Your task to perform on an android device: change timer sound Image 0: 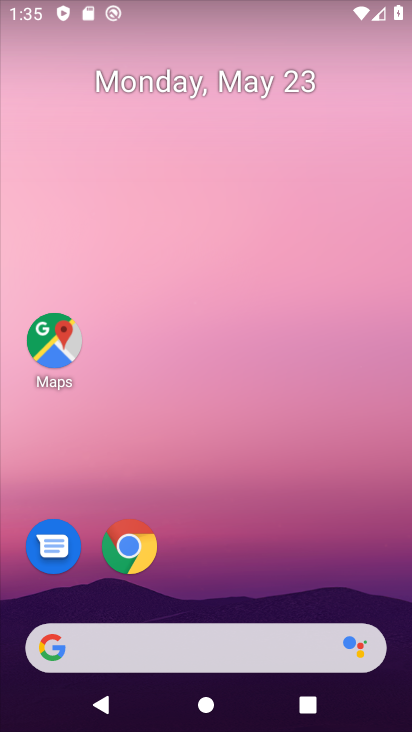
Step 0: drag from (257, 528) to (270, 33)
Your task to perform on an android device: change timer sound Image 1: 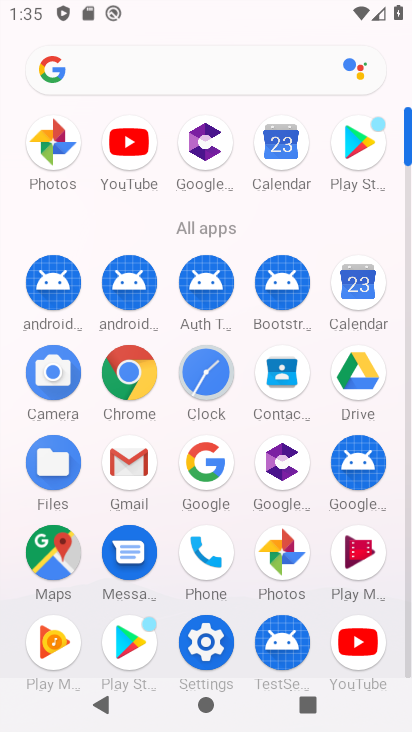
Step 1: click (205, 371)
Your task to perform on an android device: change timer sound Image 2: 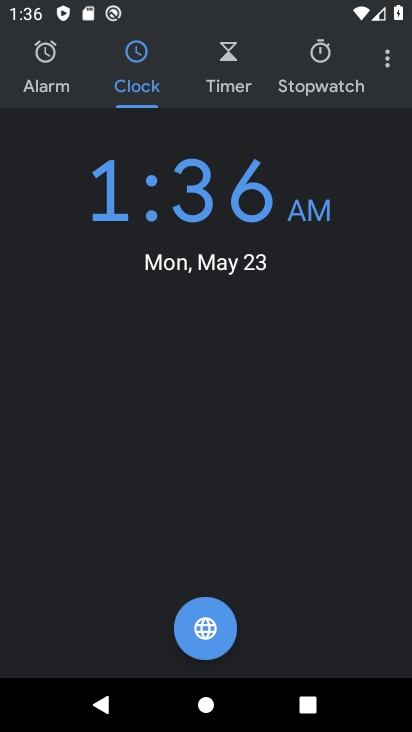
Step 2: click (388, 56)
Your task to perform on an android device: change timer sound Image 3: 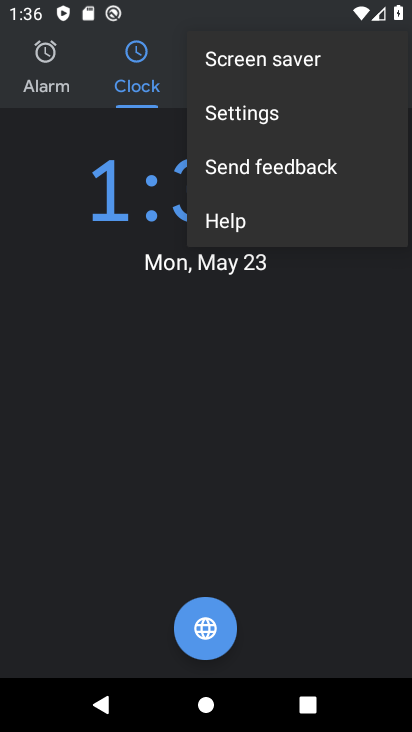
Step 3: click (304, 101)
Your task to perform on an android device: change timer sound Image 4: 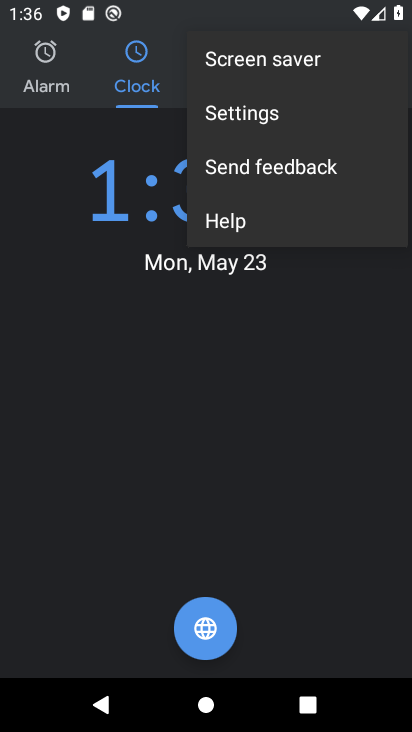
Step 4: click (260, 110)
Your task to perform on an android device: change timer sound Image 5: 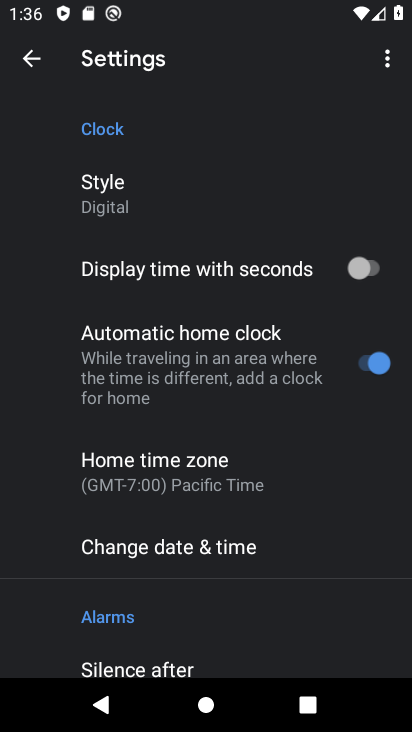
Step 5: drag from (225, 242) to (240, 92)
Your task to perform on an android device: change timer sound Image 6: 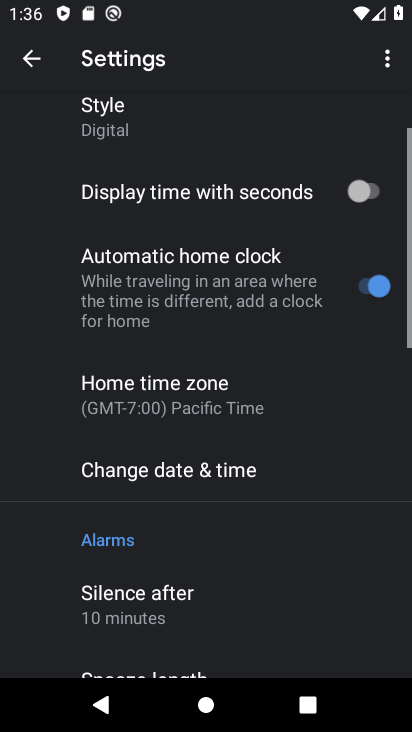
Step 6: drag from (176, 594) to (264, 5)
Your task to perform on an android device: change timer sound Image 7: 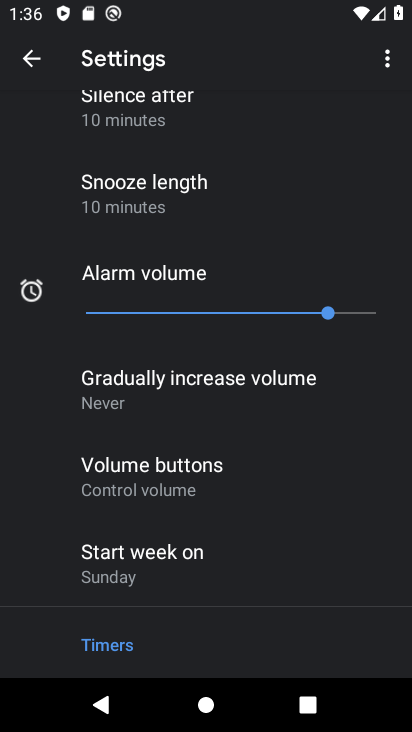
Step 7: click (218, 178)
Your task to perform on an android device: change timer sound Image 8: 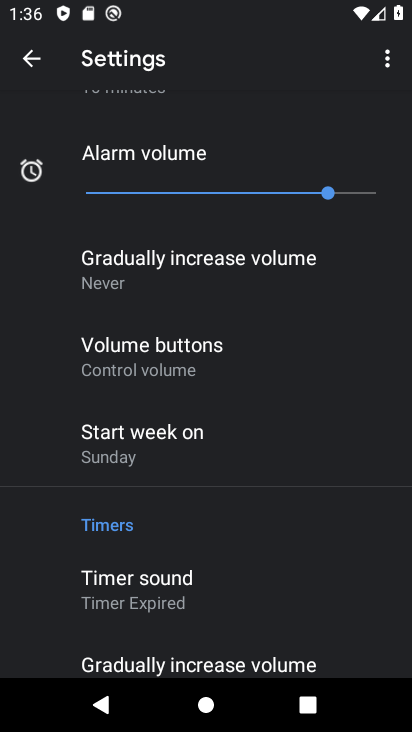
Step 8: click (138, 586)
Your task to perform on an android device: change timer sound Image 9: 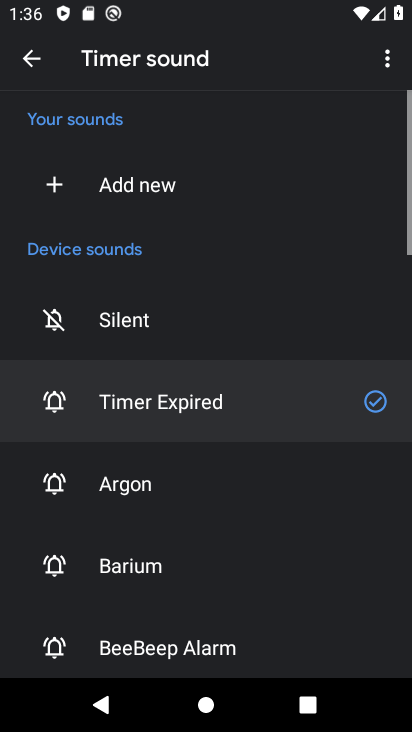
Step 9: click (157, 494)
Your task to perform on an android device: change timer sound Image 10: 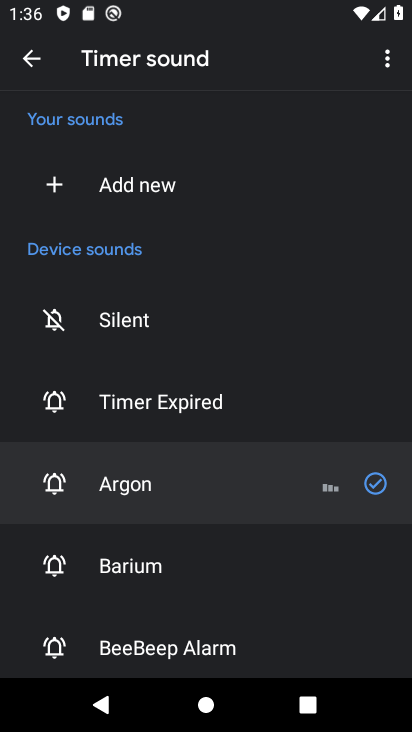
Step 10: task complete